Your task to perform on an android device: Add "razer deathadder" to the cart on amazon.com Image 0: 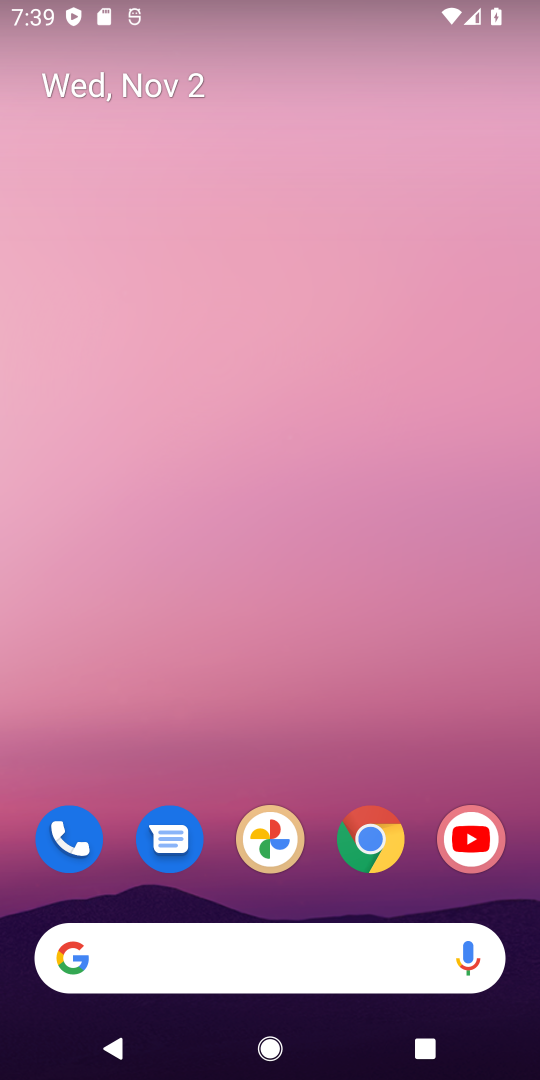
Step 0: click (372, 841)
Your task to perform on an android device: Add "razer deathadder" to the cart on amazon.com Image 1: 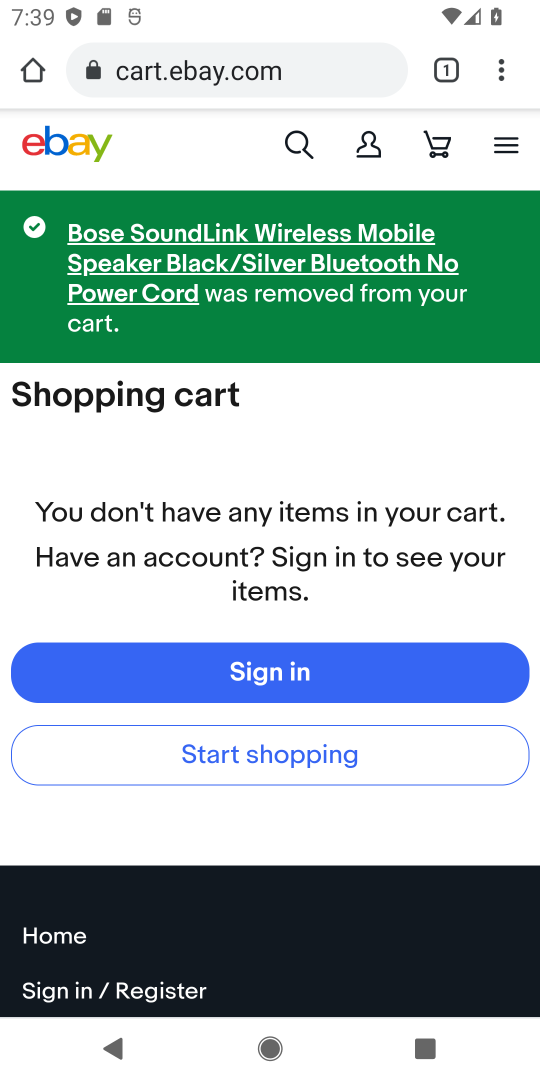
Step 1: click (287, 76)
Your task to perform on an android device: Add "razer deathadder" to the cart on amazon.com Image 2: 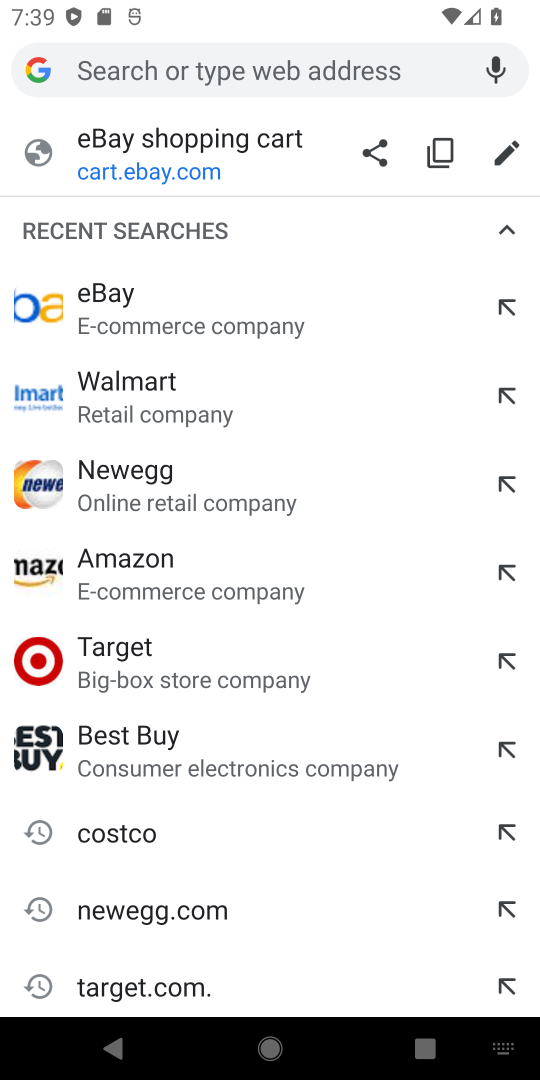
Step 2: type "amazon.com"
Your task to perform on an android device: Add "razer deathadder" to the cart on amazon.com Image 3: 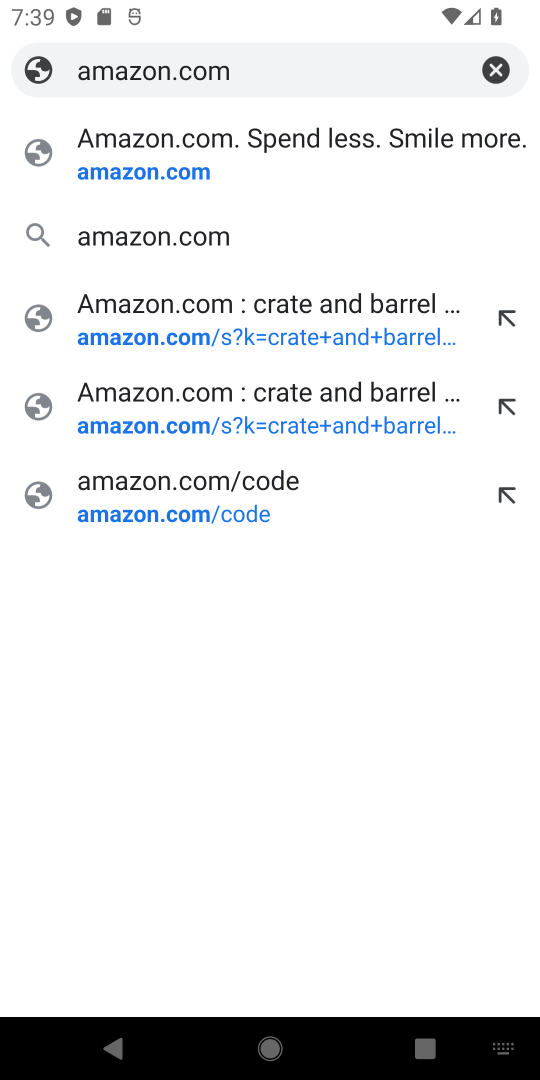
Step 3: click (196, 242)
Your task to perform on an android device: Add "razer deathadder" to the cart on amazon.com Image 4: 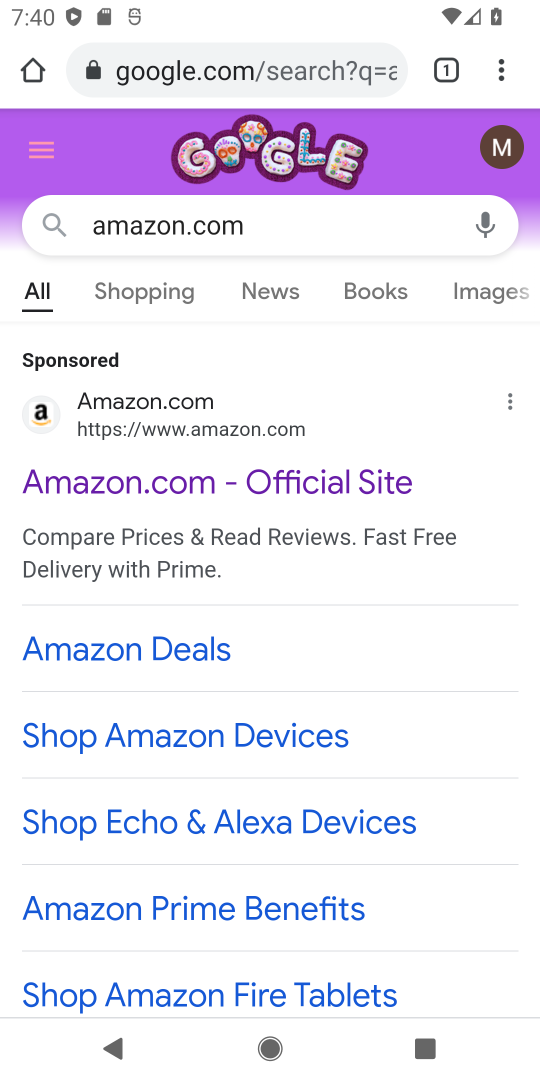
Step 4: drag from (372, 782) to (350, 322)
Your task to perform on an android device: Add "razer deathadder" to the cart on amazon.com Image 5: 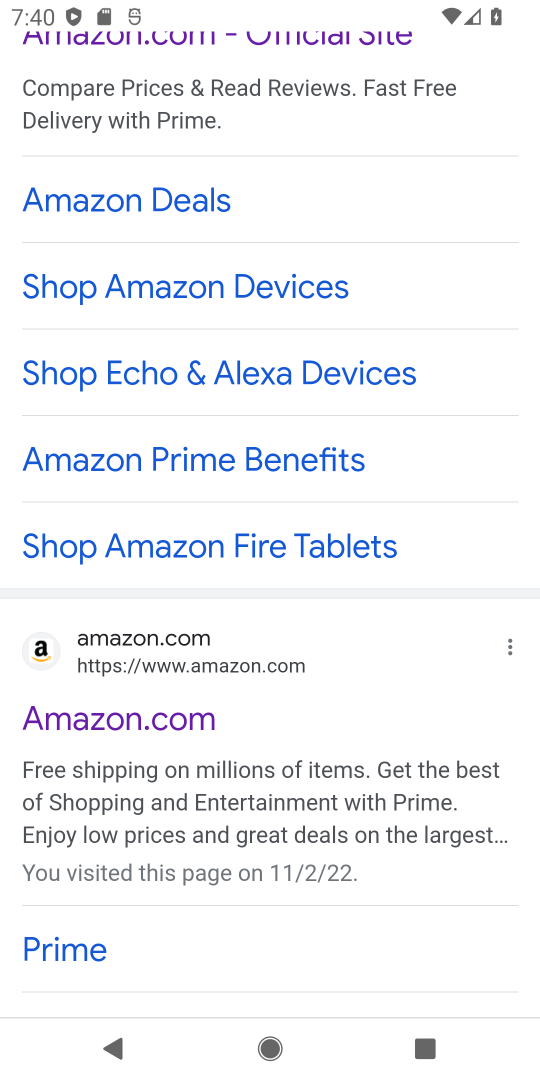
Step 5: click (259, 716)
Your task to perform on an android device: Add "razer deathadder" to the cart on amazon.com Image 6: 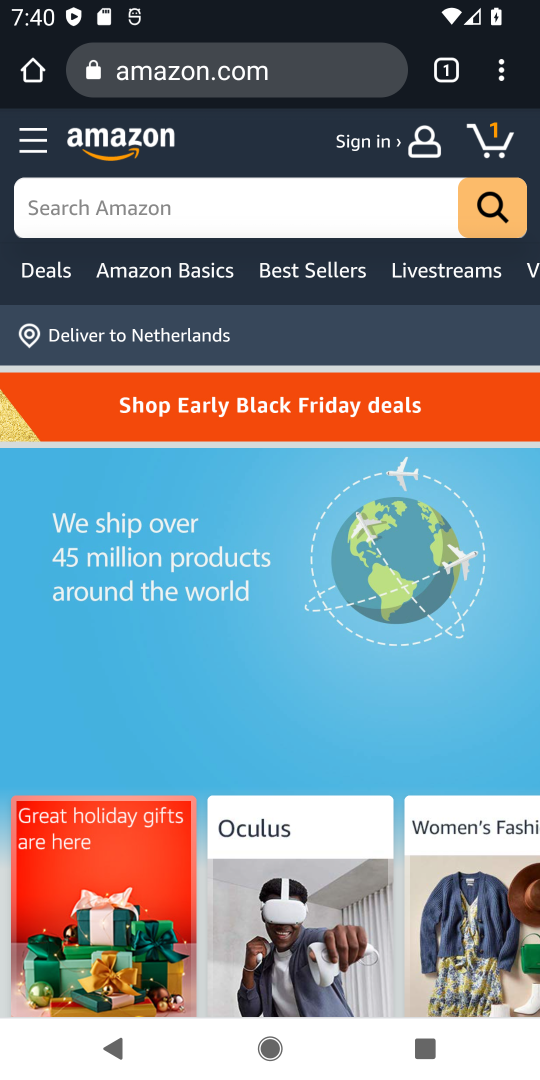
Step 6: click (209, 208)
Your task to perform on an android device: Add "razer deathadder" to the cart on amazon.com Image 7: 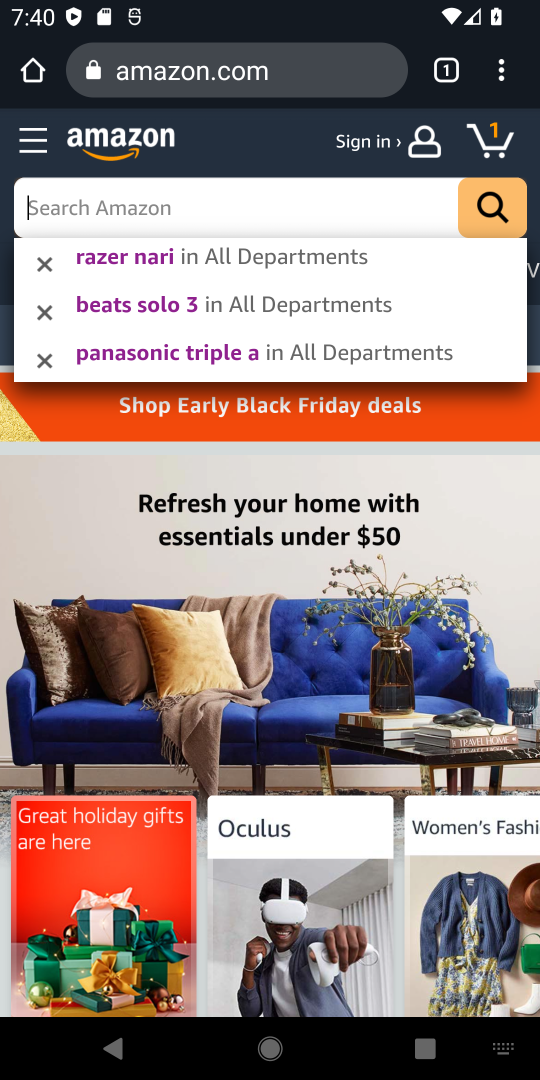
Step 7: type "razer deathadder"
Your task to perform on an android device: Add "razer deathadder" to the cart on amazon.com Image 8: 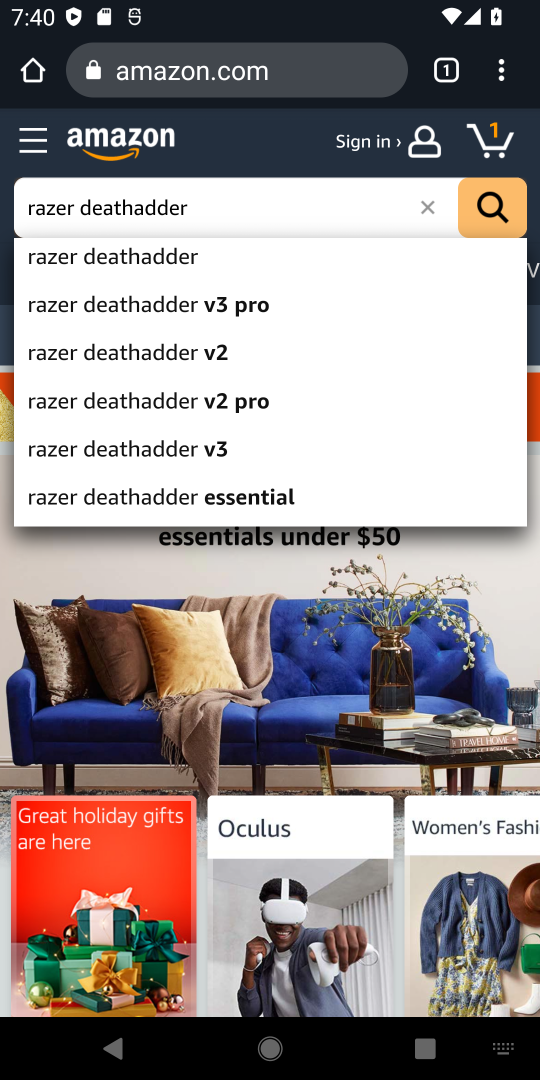
Step 8: click (190, 257)
Your task to perform on an android device: Add "razer deathadder" to the cart on amazon.com Image 9: 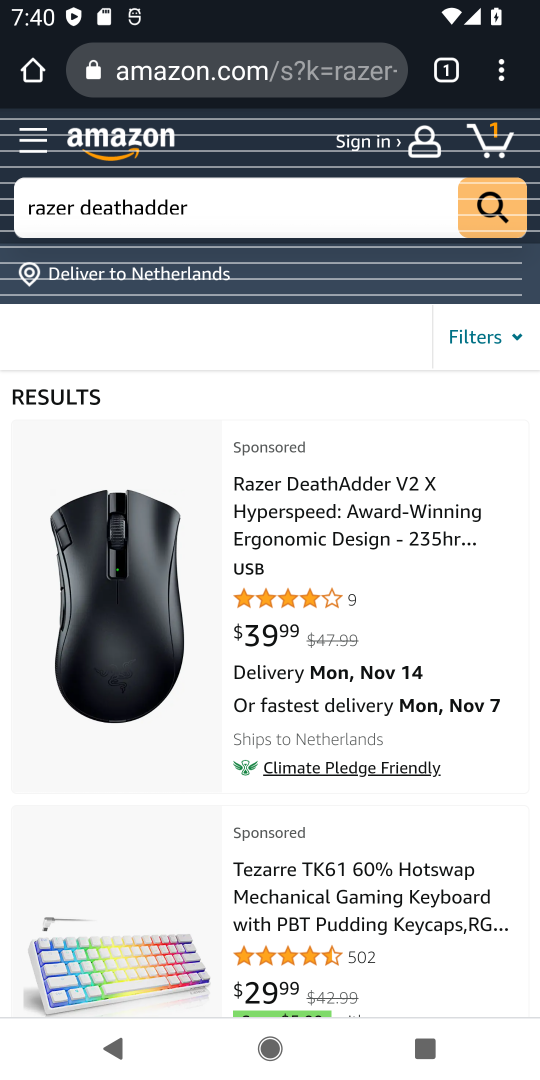
Step 9: drag from (427, 947) to (451, 515)
Your task to perform on an android device: Add "razer deathadder" to the cart on amazon.com Image 10: 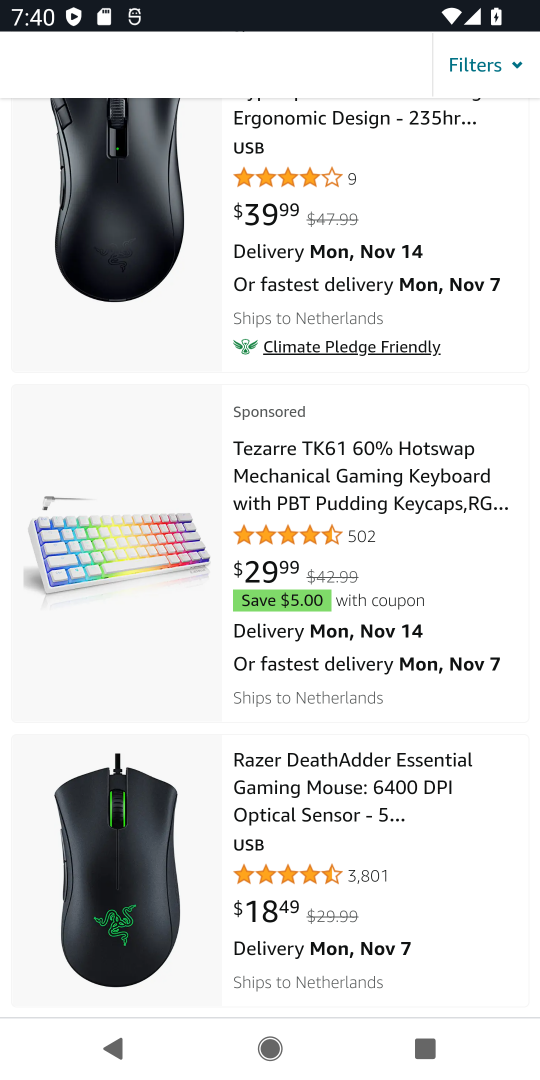
Step 10: click (380, 777)
Your task to perform on an android device: Add "razer deathadder" to the cart on amazon.com Image 11: 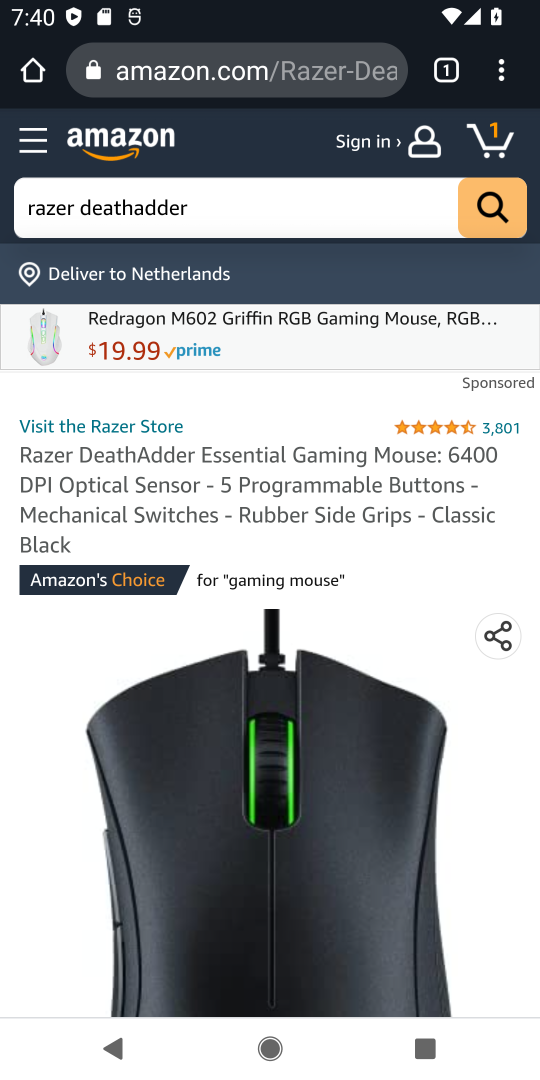
Step 11: drag from (460, 851) to (394, 453)
Your task to perform on an android device: Add "razer deathadder" to the cart on amazon.com Image 12: 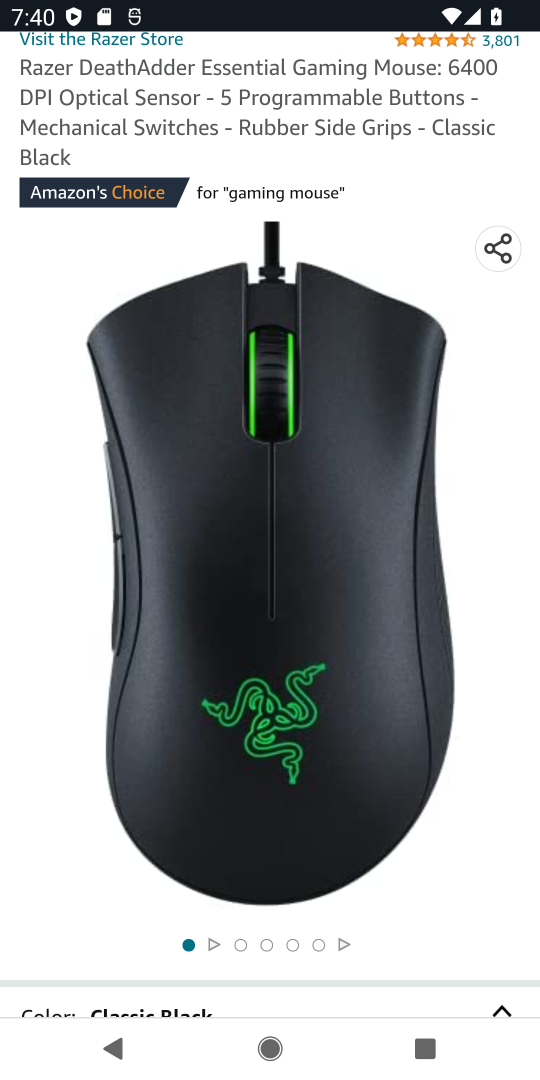
Step 12: drag from (437, 869) to (411, 347)
Your task to perform on an android device: Add "razer deathadder" to the cart on amazon.com Image 13: 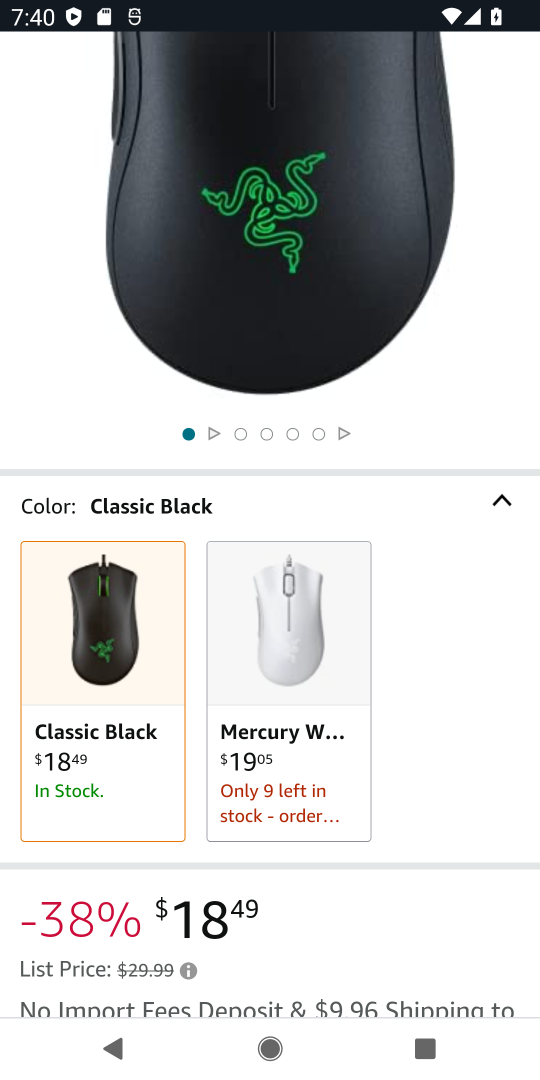
Step 13: drag from (435, 784) to (435, 369)
Your task to perform on an android device: Add "razer deathadder" to the cart on amazon.com Image 14: 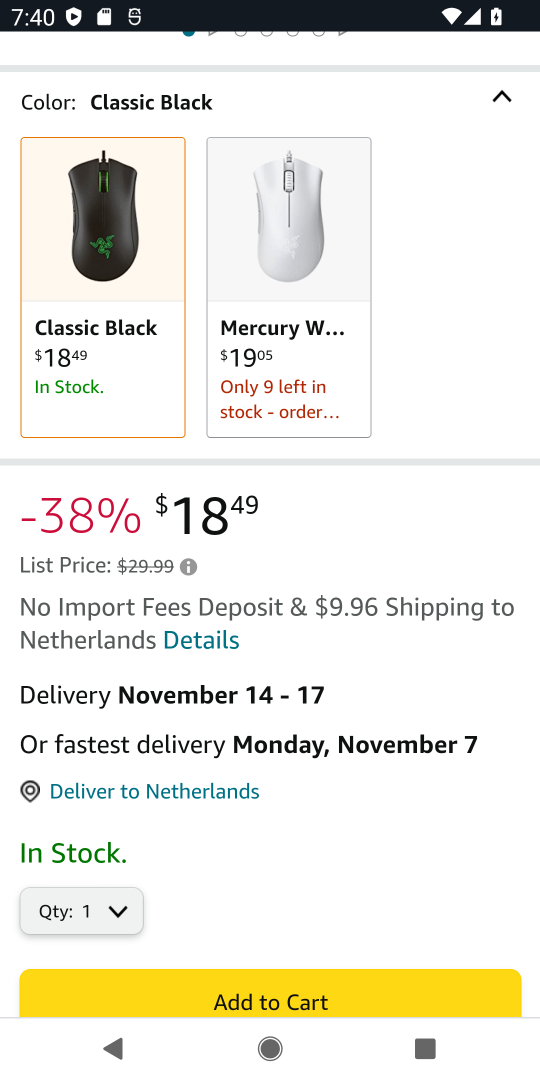
Step 14: drag from (330, 806) to (374, 486)
Your task to perform on an android device: Add "razer deathadder" to the cart on amazon.com Image 15: 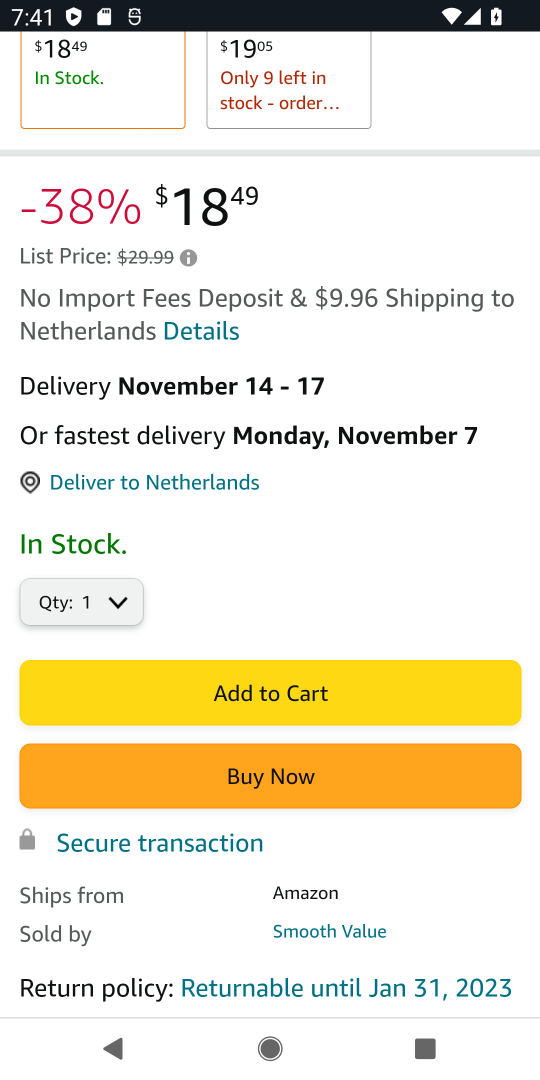
Step 15: click (279, 691)
Your task to perform on an android device: Add "razer deathadder" to the cart on amazon.com Image 16: 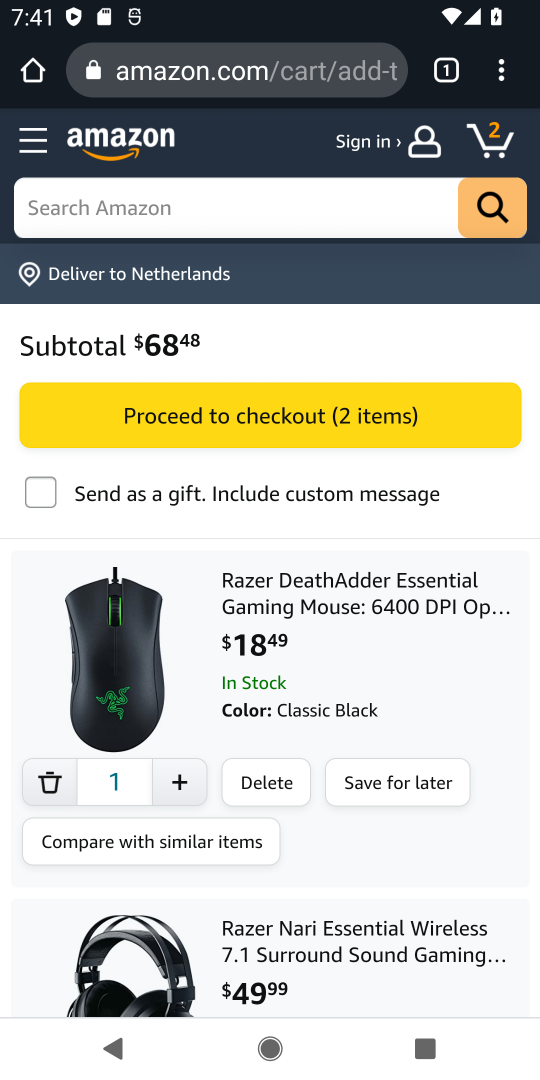
Step 16: task complete